Your task to perform on an android device: create a new album in the google photos Image 0: 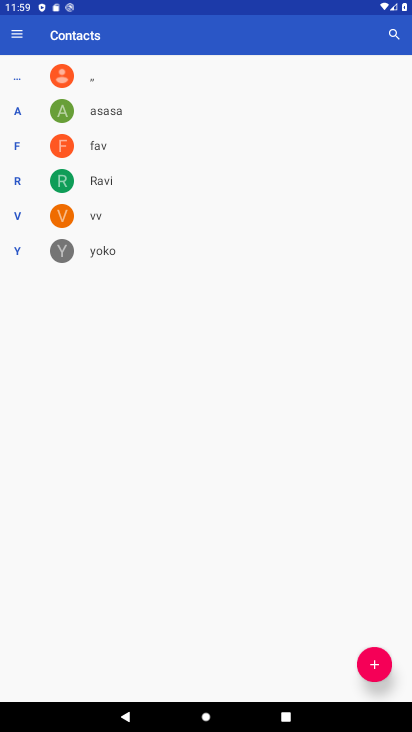
Step 0: press home button
Your task to perform on an android device: create a new album in the google photos Image 1: 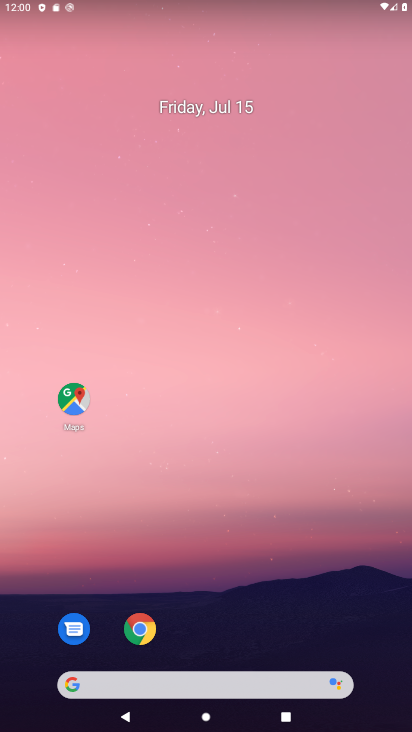
Step 1: click (11, 514)
Your task to perform on an android device: create a new album in the google photos Image 2: 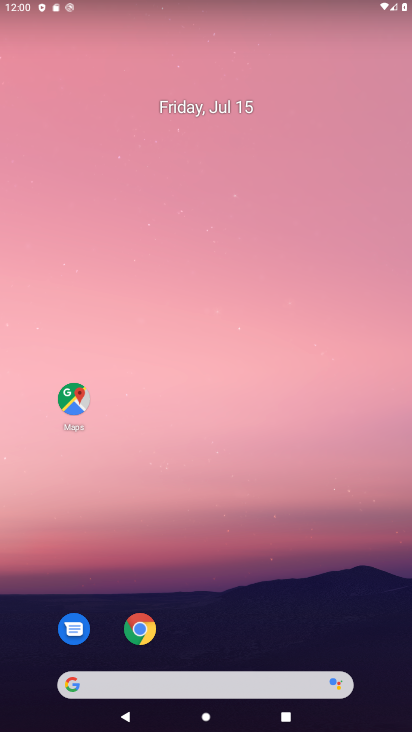
Step 2: drag from (333, 622) to (154, 28)
Your task to perform on an android device: create a new album in the google photos Image 3: 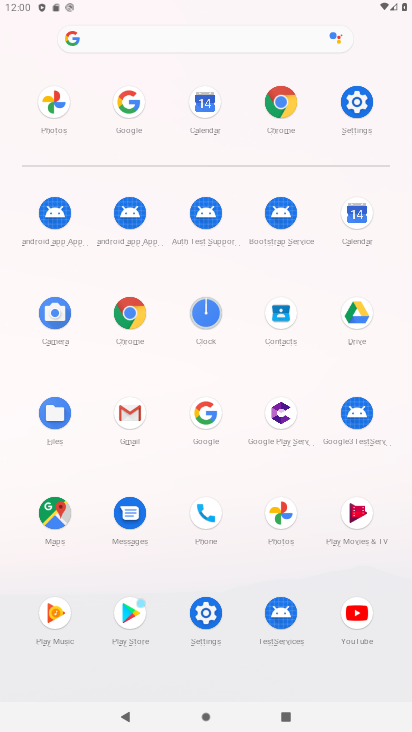
Step 3: click (273, 514)
Your task to perform on an android device: create a new album in the google photos Image 4: 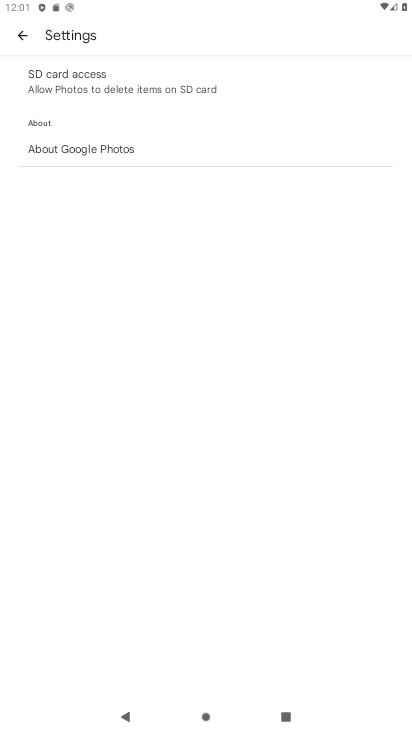
Step 4: click (26, 36)
Your task to perform on an android device: create a new album in the google photos Image 5: 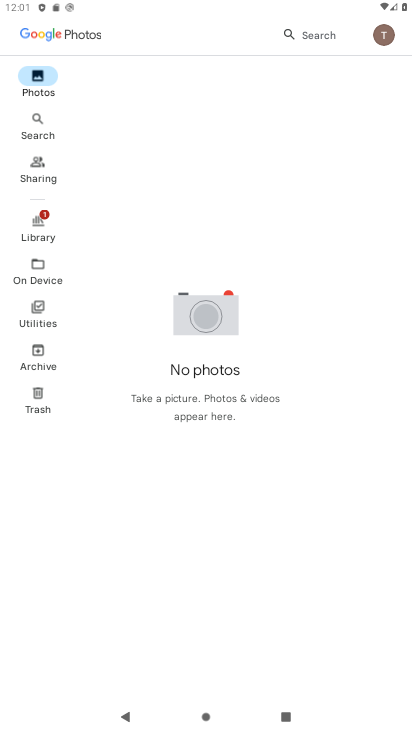
Step 5: click (32, 231)
Your task to perform on an android device: create a new album in the google photos Image 6: 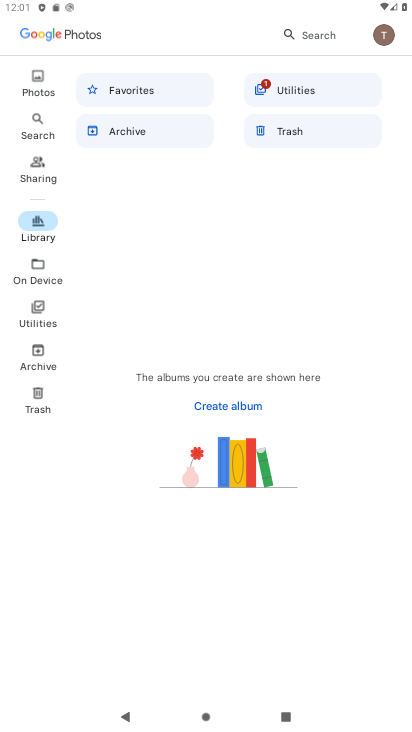
Step 6: click (48, 318)
Your task to perform on an android device: create a new album in the google photos Image 7: 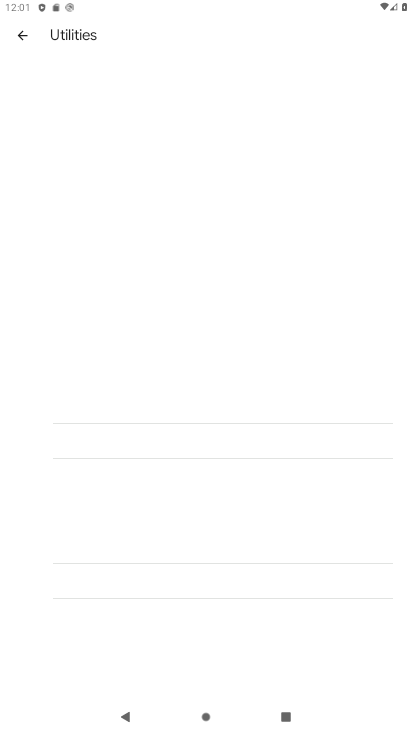
Step 7: click (44, 228)
Your task to perform on an android device: create a new album in the google photos Image 8: 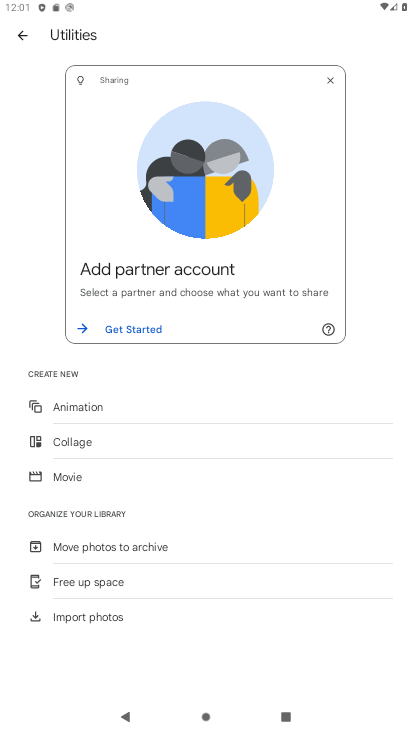
Step 8: click (19, 36)
Your task to perform on an android device: create a new album in the google photos Image 9: 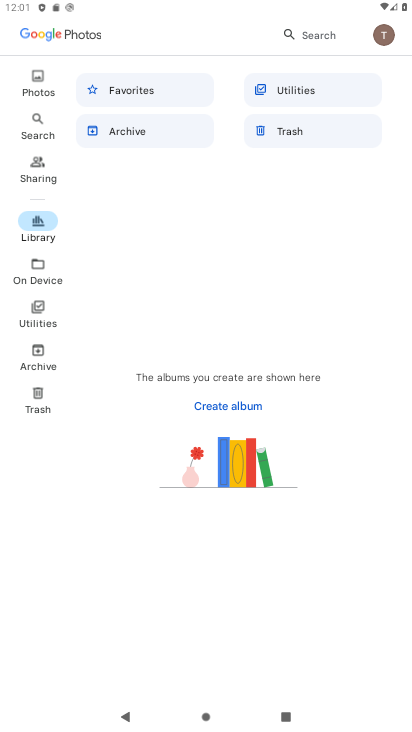
Step 9: click (242, 397)
Your task to perform on an android device: create a new album in the google photos Image 10: 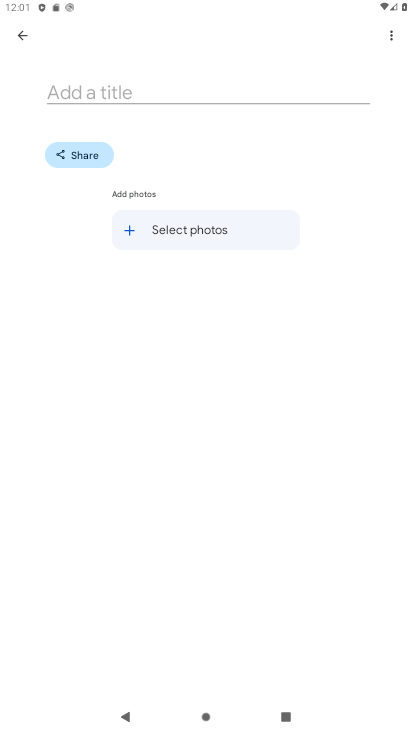
Step 10: click (266, 97)
Your task to perform on an android device: create a new album in the google photos Image 11: 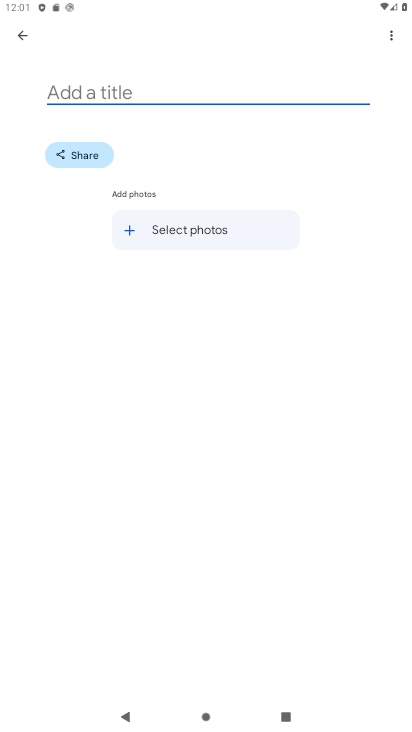
Step 11: click (266, 92)
Your task to perform on an android device: create a new album in the google photos Image 12: 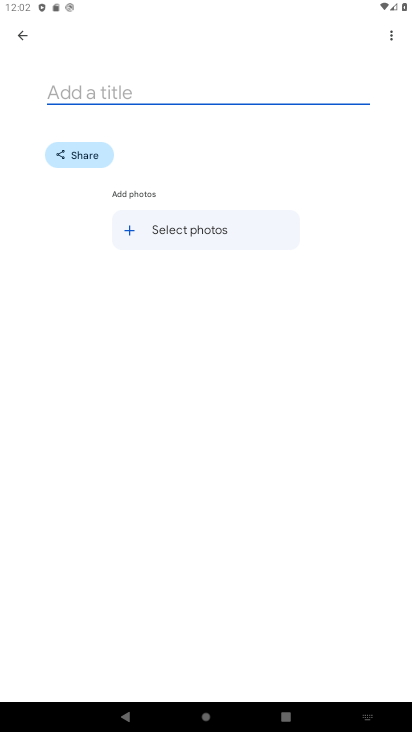
Step 12: type "hjo"
Your task to perform on an android device: create a new album in the google photos Image 13: 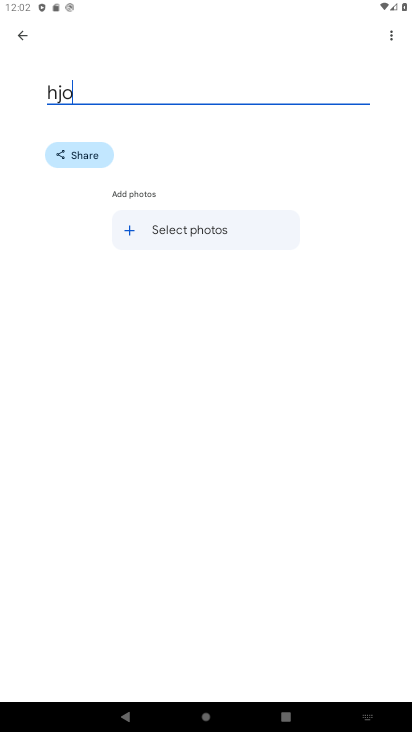
Step 13: press enter
Your task to perform on an android device: create a new album in the google photos Image 14: 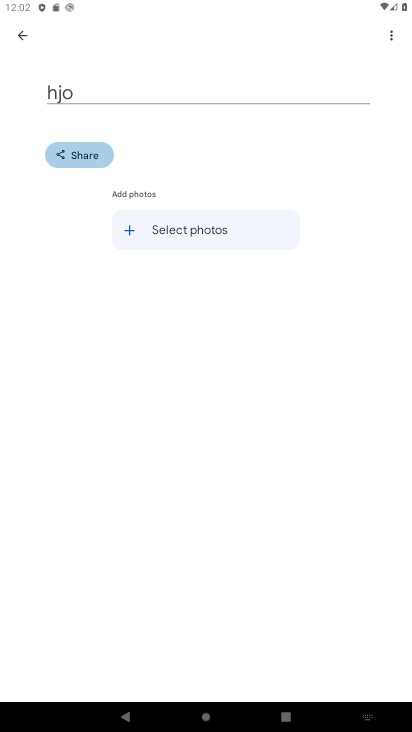
Step 14: click (230, 178)
Your task to perform on an android device: create a new album in the google photos Image 15: 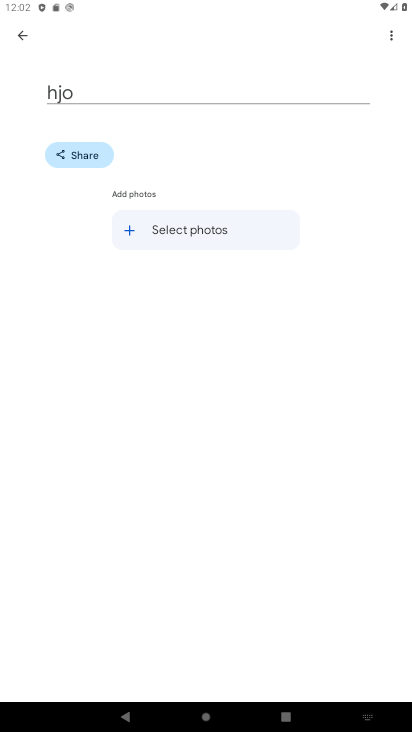
Step 15: click (387, 35)
Your task to perform on an android device: create a new album in the google photos Image 16: 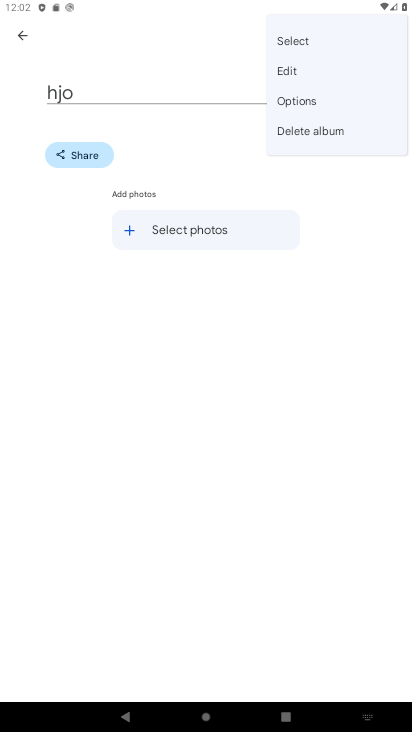
Step 16: click (300, 42)
Your task to perform on an android device: create a new album in the google photos Image 17: 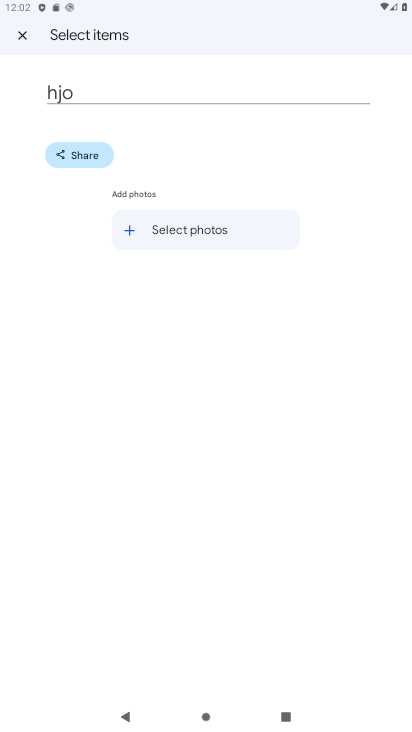
Step 17: click (23, 30)
Your task to perform on an android device: create a new album in the google photos Image 18: 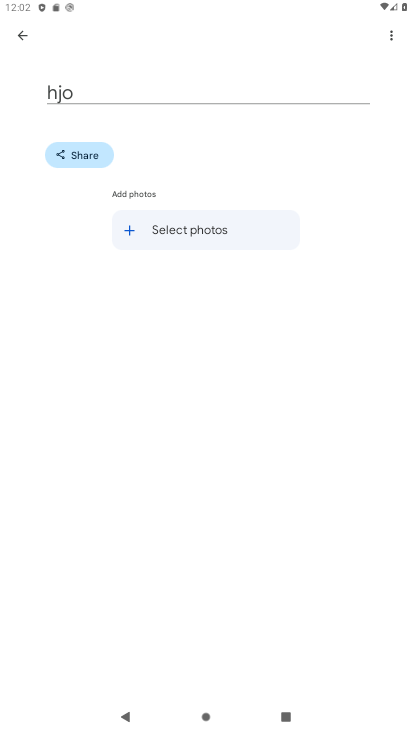
Step 18: click (23, 30)
Your task to perform on an android device: create a new album in the google photos Image 19: 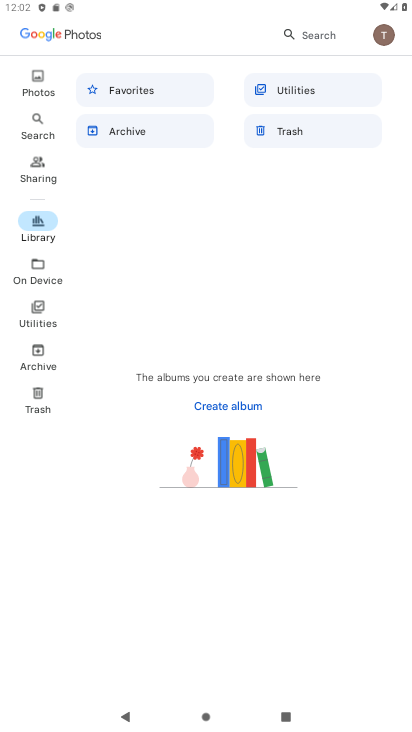
Step 19: task complete